Your task to perform on an android device: Open the calendar app, open the side menu, and click the "Day" option Image 0: 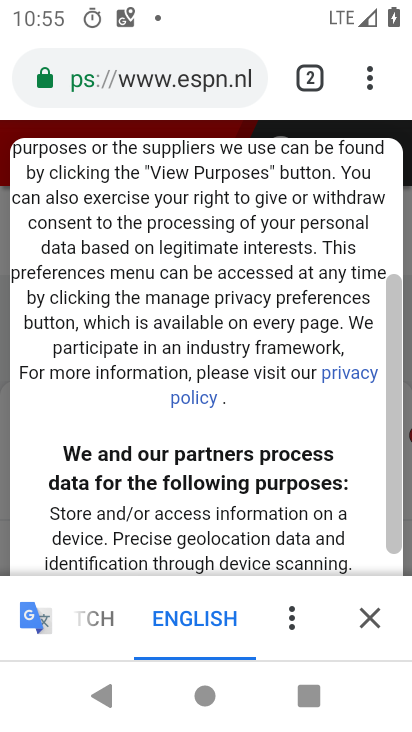
Step 0: press home button
Your task to perform on an android device: Open the calendar app, open the side menu, and click the "Day" option Image 1: 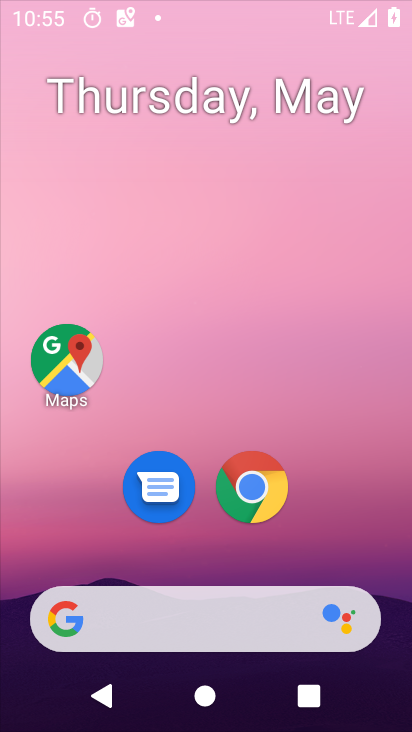
Step 1: drag from (249, 616) to (261, 94)
Your task to perform on an android device: Open the calendar app, open the side menu, and click the "Day" option Image 2: 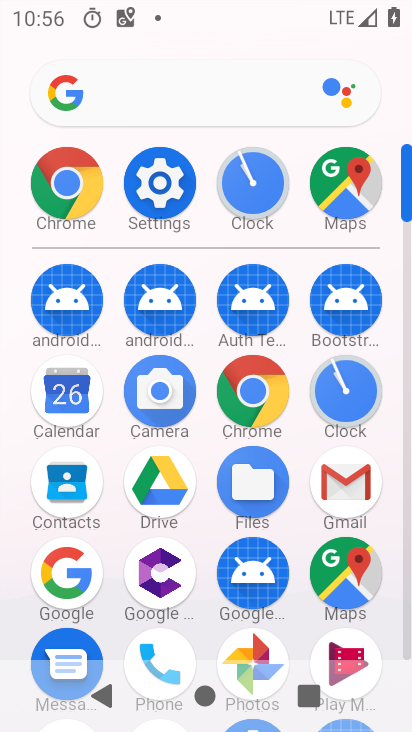
Step 2: click (74, 401)
Your task to perform on an android device: Open the calendar app, open the side menu, and click the "Day" option Image 3: 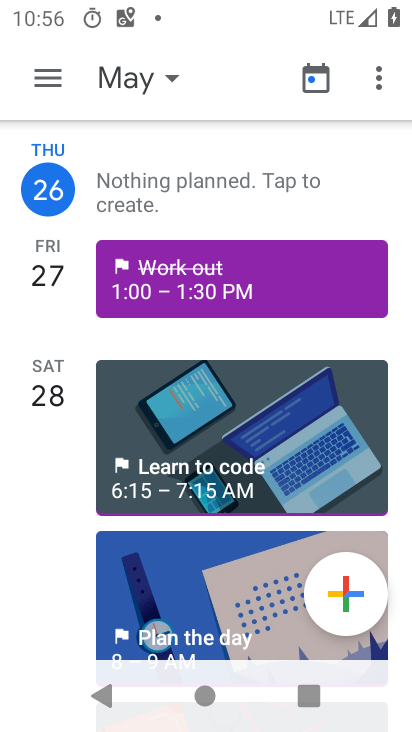
Step 3: click (44, 81)
Your task to perform on an android device: Open the calendar app, open the side menu, and click the "Day" option Image 4: 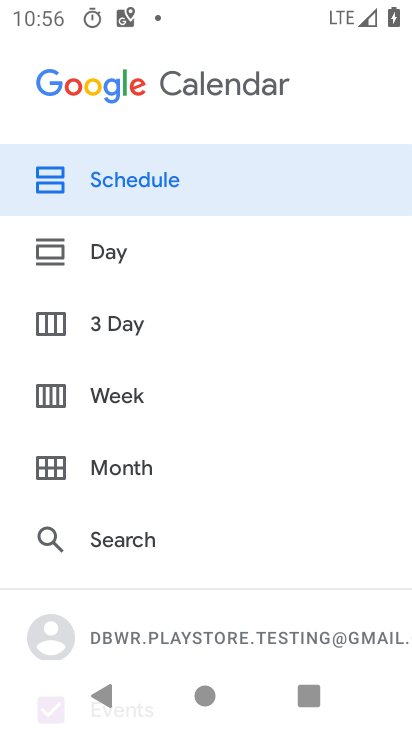
Step 4: click (144, 257)
Your task to perform on an android device: Open the calendar app, open the side menu, and click the "Day" option Image 5: 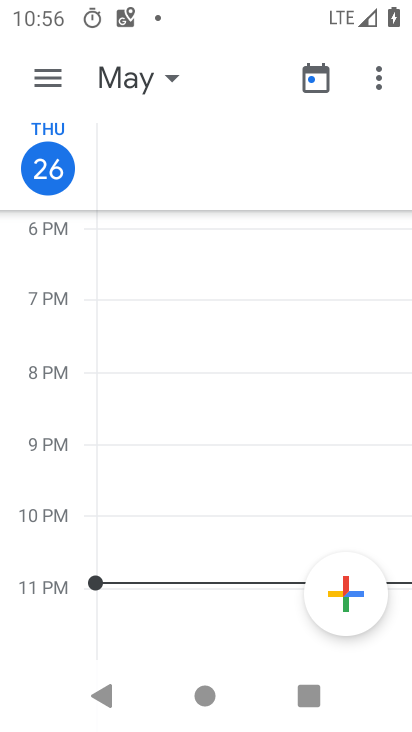
Step 5: task complete